Your task to perform on an android device: Open Reddit.com Image 0: 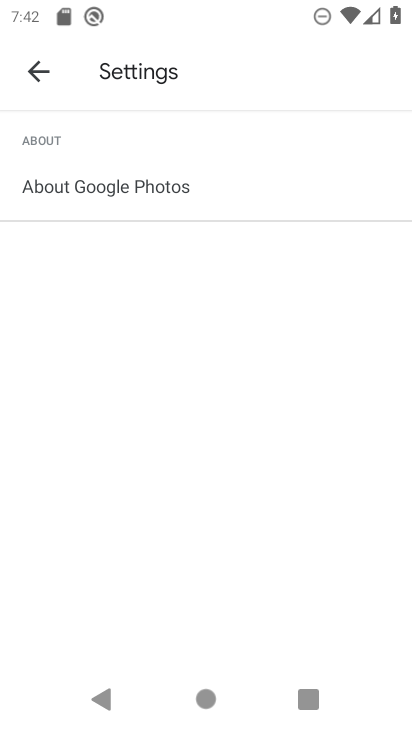
Step 0: press home button
Your task to perform on an android device: Open Reddit.com Image 1: 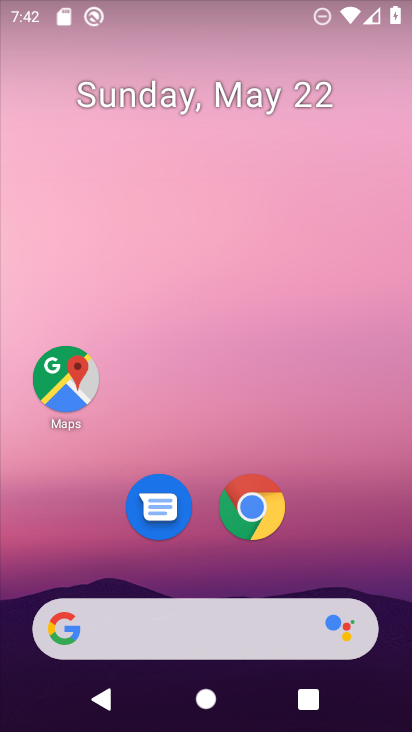
Step 1: click (166, 615)
Your task to perform on an android device: Open Reddit.com Image 2: 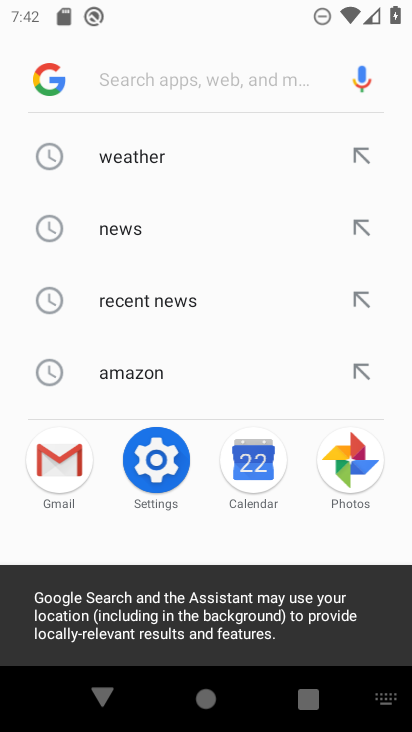
Step 2: click (177, 75)
Your task to perform on an android device: Open Reddit.com Image 3: 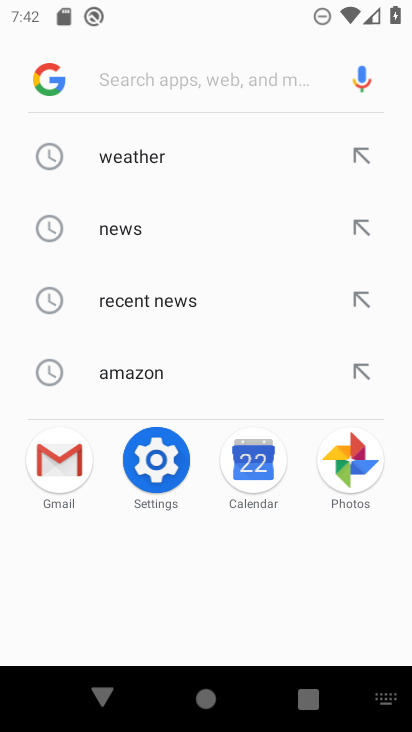
Step 3: type "reddit.com"
Your task to perform on an android device: Open Reddit.com Image 4: 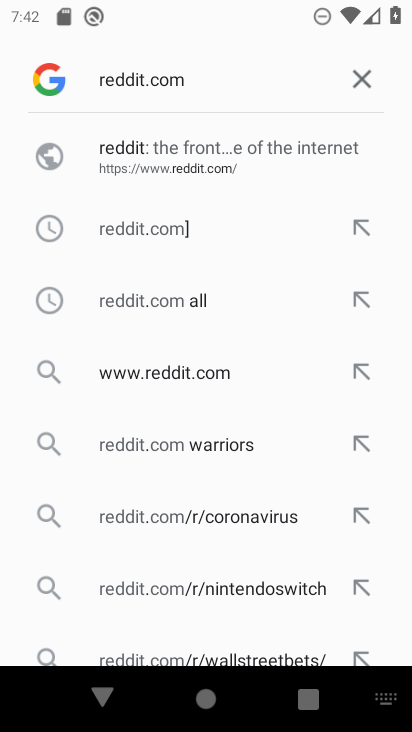
Step 4: click (192, 156)
Your task to perform on an android device: Open Reddit.com Image 5: 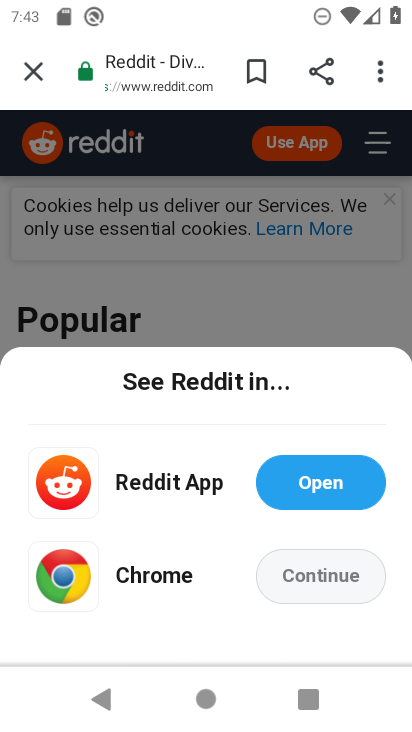
Step 5: task complete